Your task to perform on an android device: Do I have any events this weekend? Image 0: 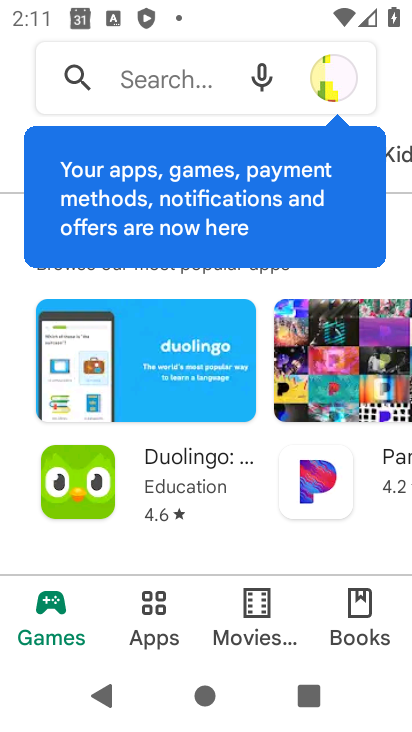
Step 0: press home button
Your task to perform on an android device: Do I have any events this weekend? Image 1: 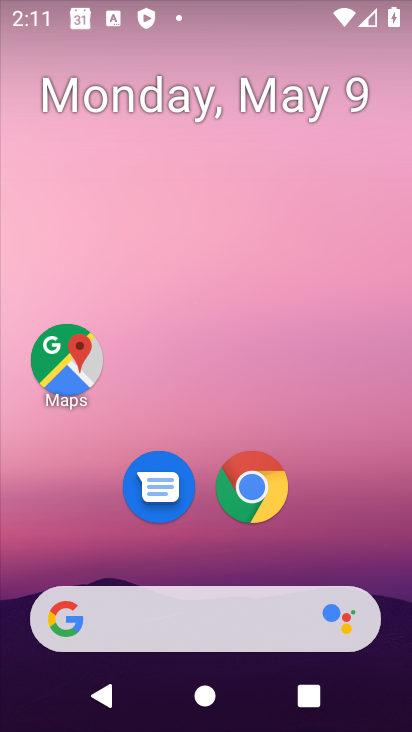
Step 1: drag from (208, 551) to (226, 101)
Your task to perform on an android device: Do I have any events this weekend? Image 2: 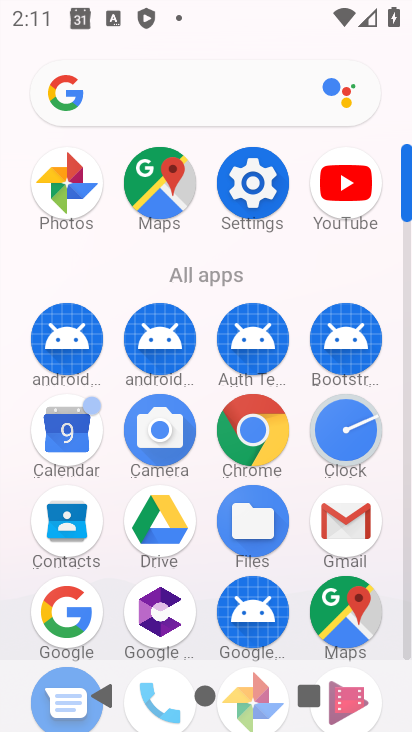
Step 2: click (69, 416)
Your task to perform on an android device: Do I have any events this weekend? Image 3: 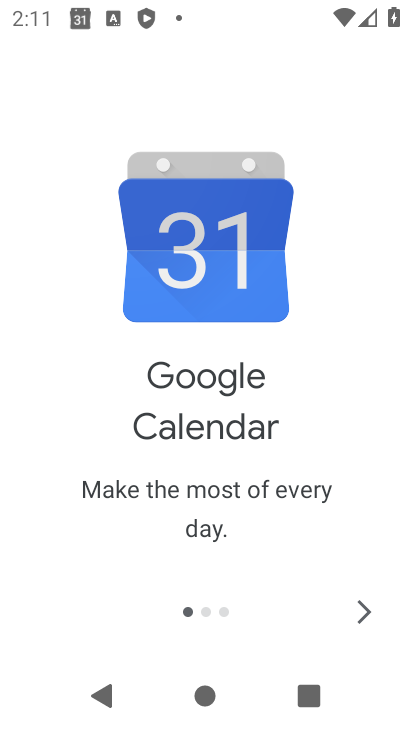
Step 3: click (364, 603)
Your task to perform on an android device: Do I have any events this weekend? Image 4: 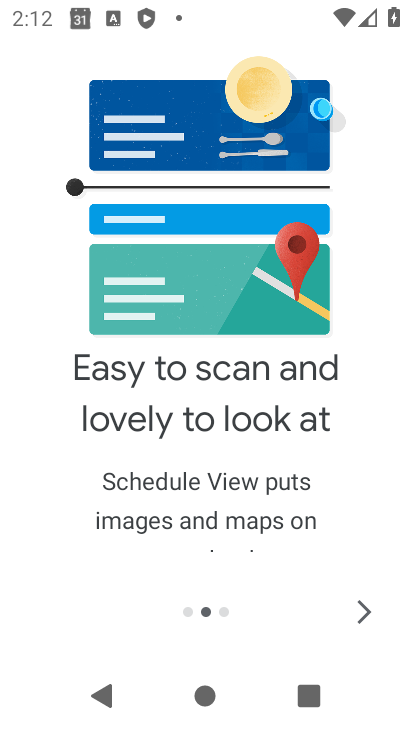
Step 4: click (364, 603)
Your task to perform on an android device: Do I have any events this weekend? Image 5: 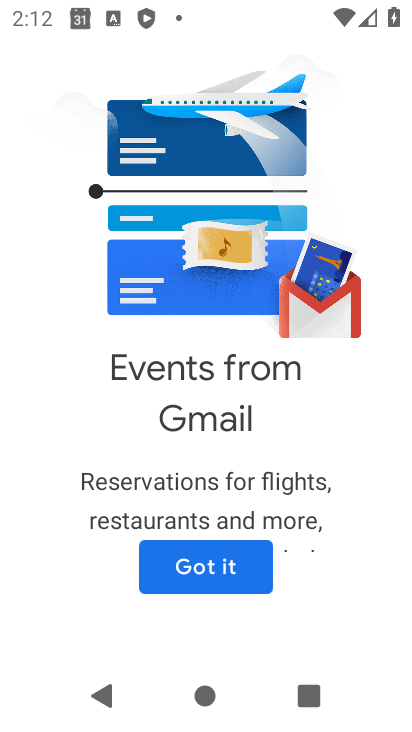
Step 5: click (248, 565)
Your task to perform on an android device: Do I have any events this weekend? Image 6: 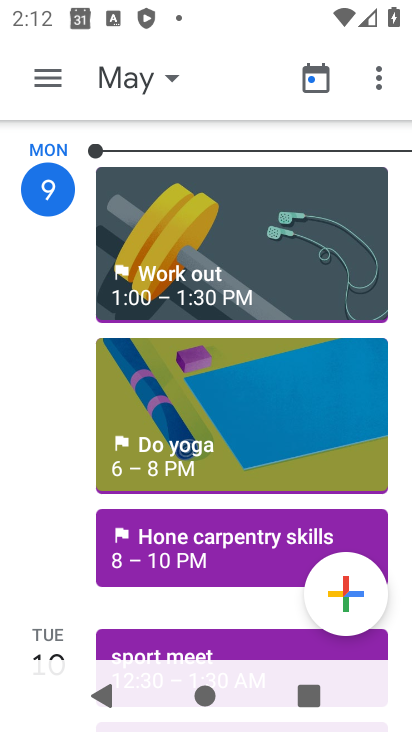
Step 6: click (37, 73)
Your task to perform on an android device: Do I have any events this weekend? Image 7: 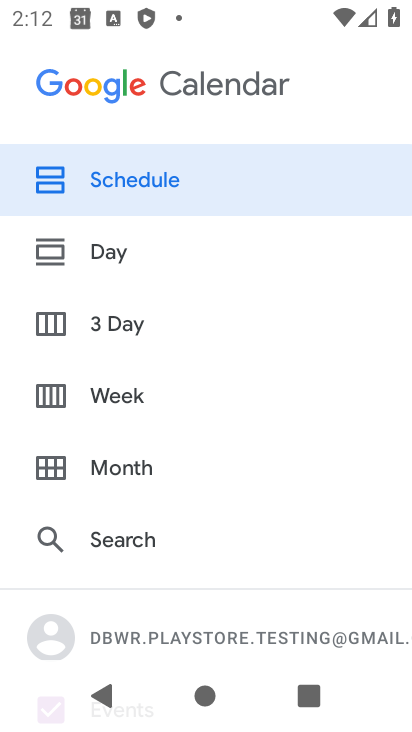
Step 7: click (56, 393)
Your task to perform on an android device: Do I have any events this weekend? Image 8: 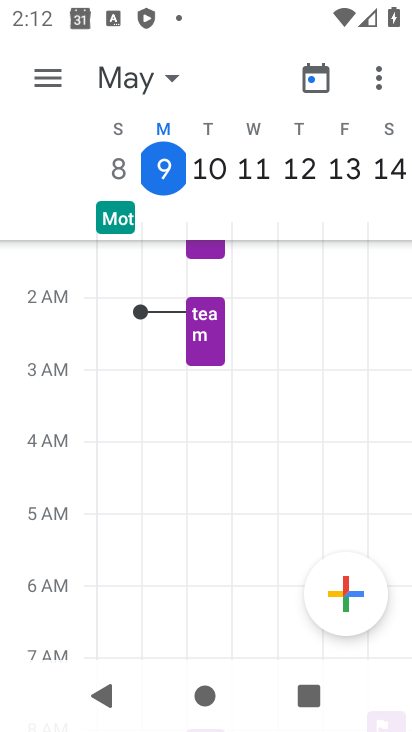
Step 8: click (387, 123)
Your task to perform on an android device: Do I have any events this weekend? Image 9: 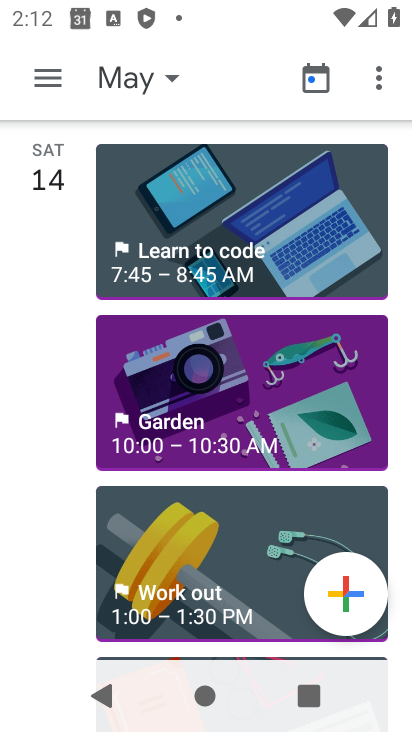
Step 9: task complete